Your task to perform on an android device: read, delete, or share a saved page in the chrome app Image 0: 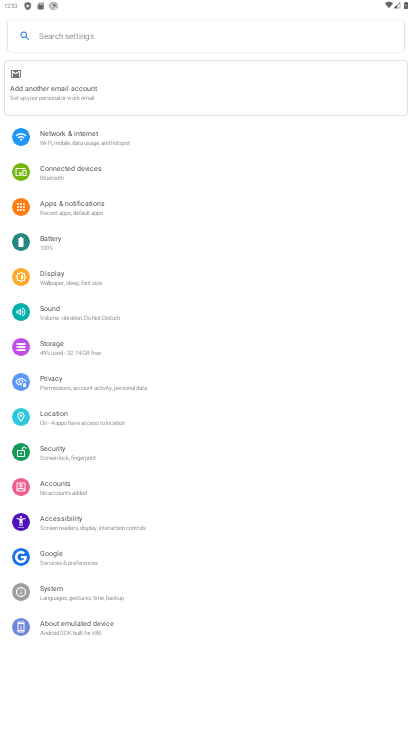
Step 0: press home button
Your task to perform on an android device: read, delete, or share a saved page in the chrome app Image 1: 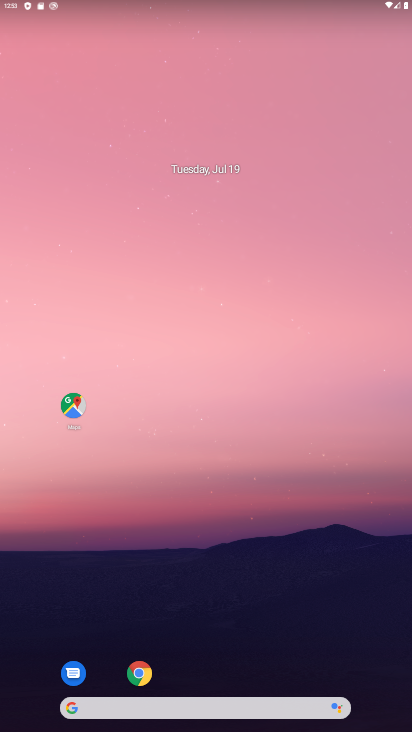
Step 1: drag from (229, 682) to (157, 9)
Your task to perform on an android device: read, delete, or share a saved page in the chrome app Image 2: 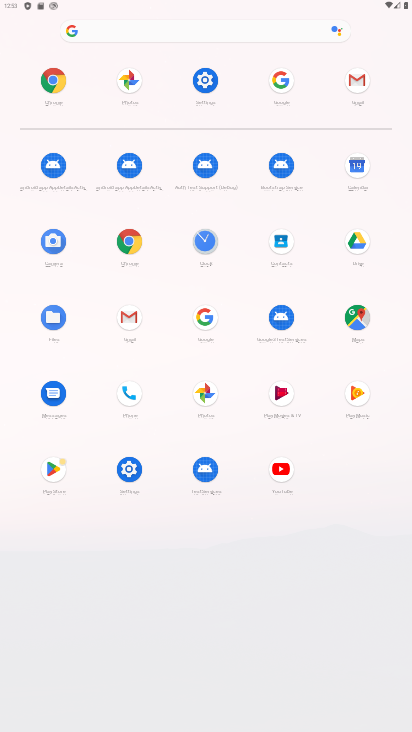
Step 2: click (126, 256)
Your task to perform on an android device: read, delete, or share a saved page in the chrome app Image 3: 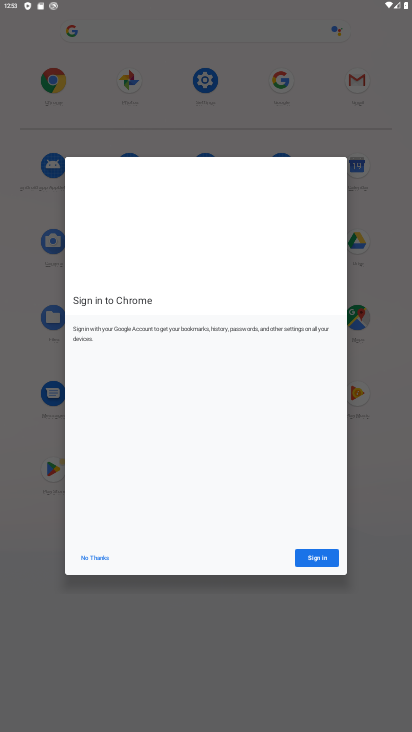
Step 3: click (314, 553)
Your task to perform on an android device: read, delete, or share a saved page in the chrome app Image 4: 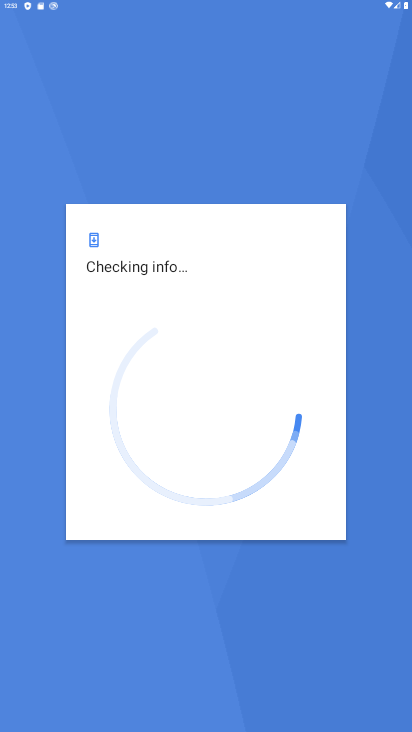
Step 4: task complete